Your task to perform on an android device: View the shopping cart on target. Add "logitech g pro" to the cart on target Image 0: 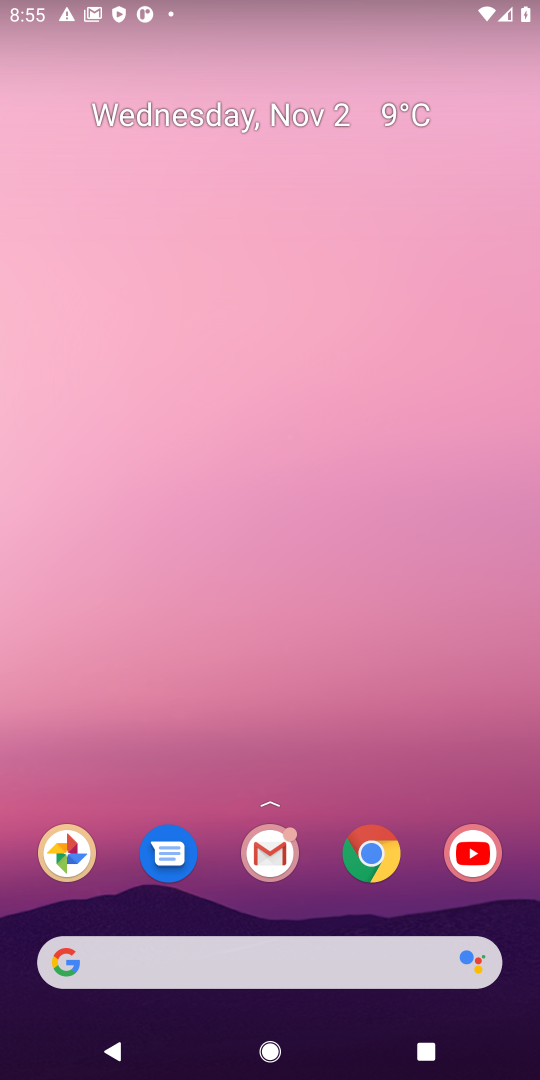
Step 0: press home button
Your task to perform on an android device: View the shopping cart on target. Add "logitech g pro" to the cart on target Image 1: 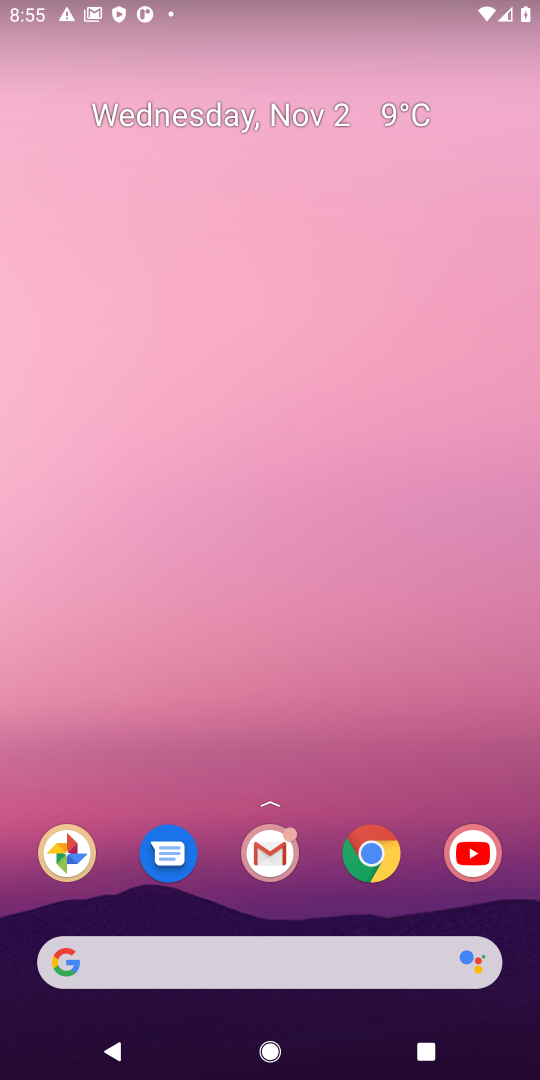
Step 1: click (378, 857)
Your task to perform on an android device: View the shopping cart on target. Add "logitech g pro" to the cart on target Image 2: 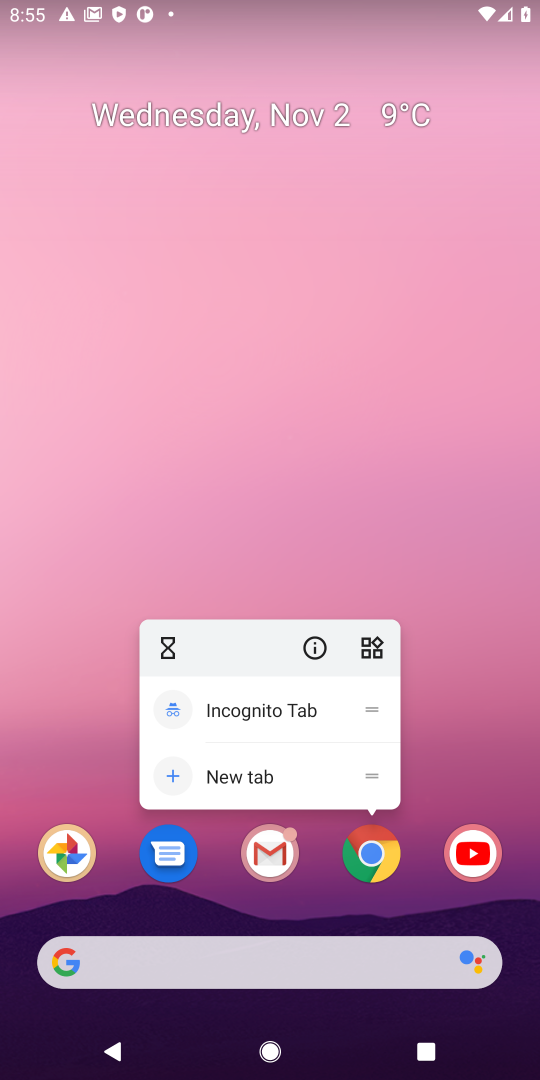
Step 2: click (370, 850)
Your task to perform on an android device: View the shopping cart on target. Add "logitech g pro" to the cart on target Image 3: 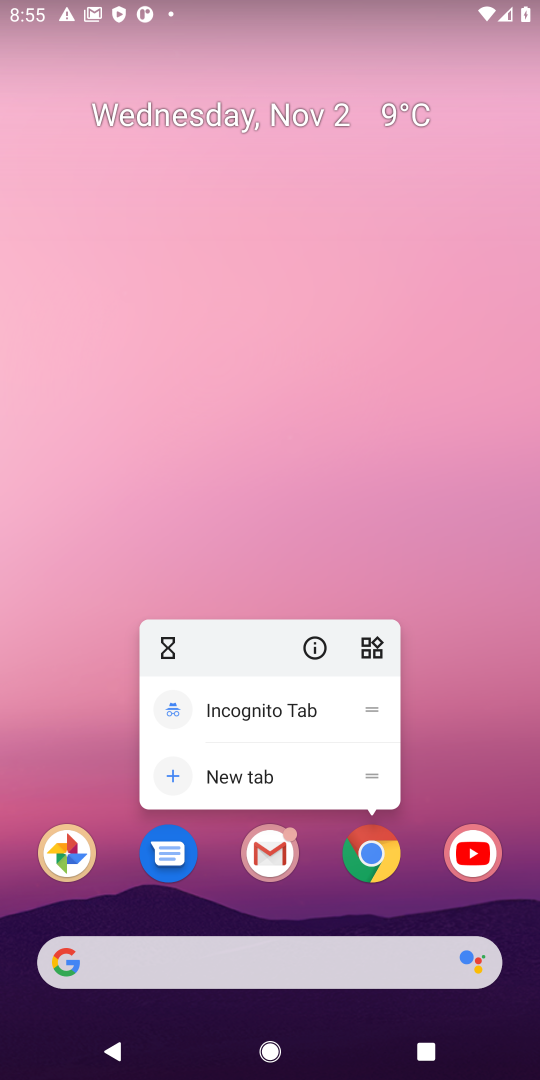
Step 3: click (370, 849)
Your task to perform on an android device: View the shopping cart on target. Add "logitech g pro" to the cart on target Image 4: 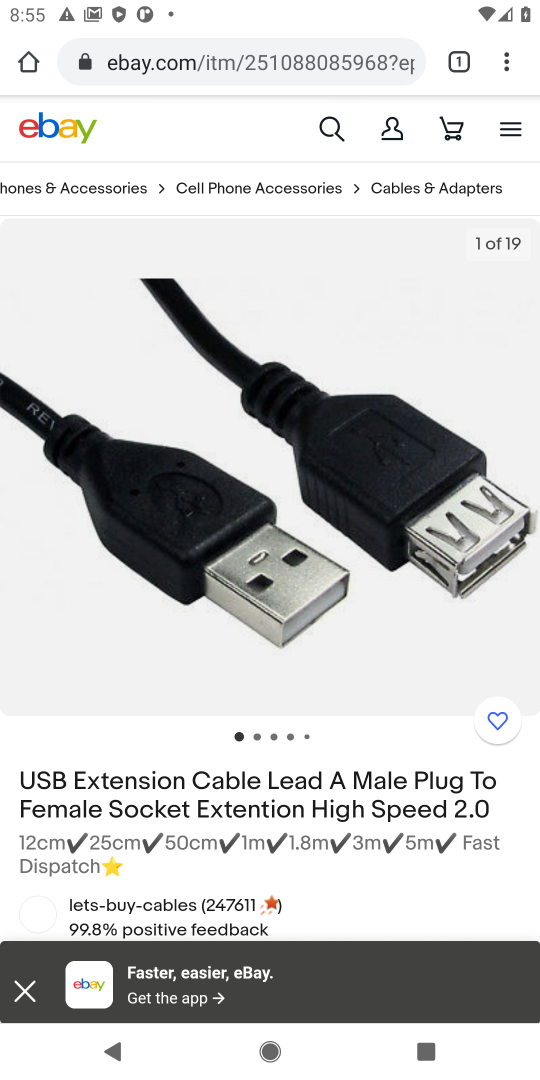
Step 4: click (367, 68)
Your task to perform on an android device: View the shopping cart on target. Add "logitech g pro" to the cart on target Image 5: 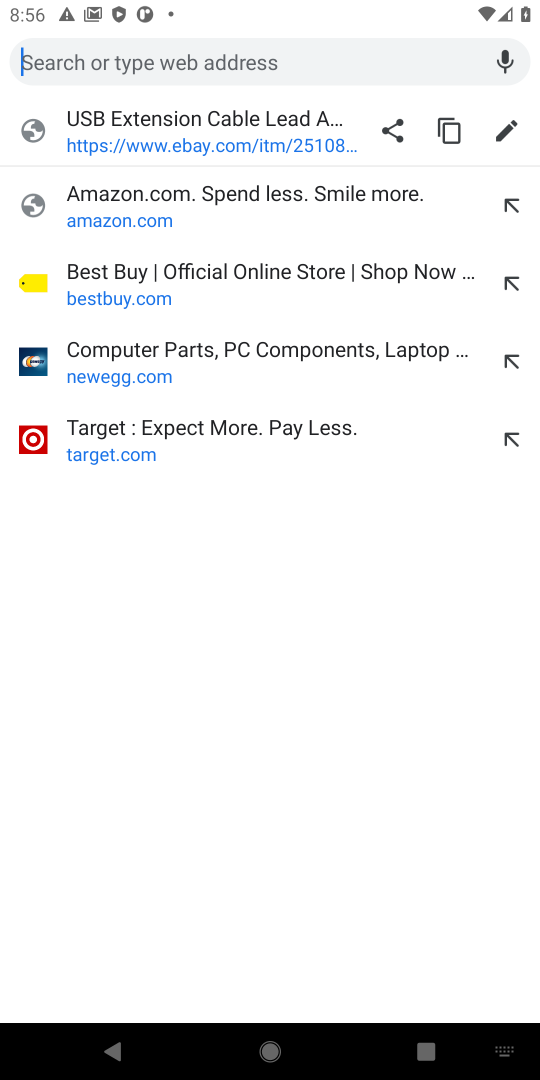
Step 5: type "target"
Your task to perform on an android device: View the shopping cart on target. Add "logitech g pro" to the cart on target Image 6: 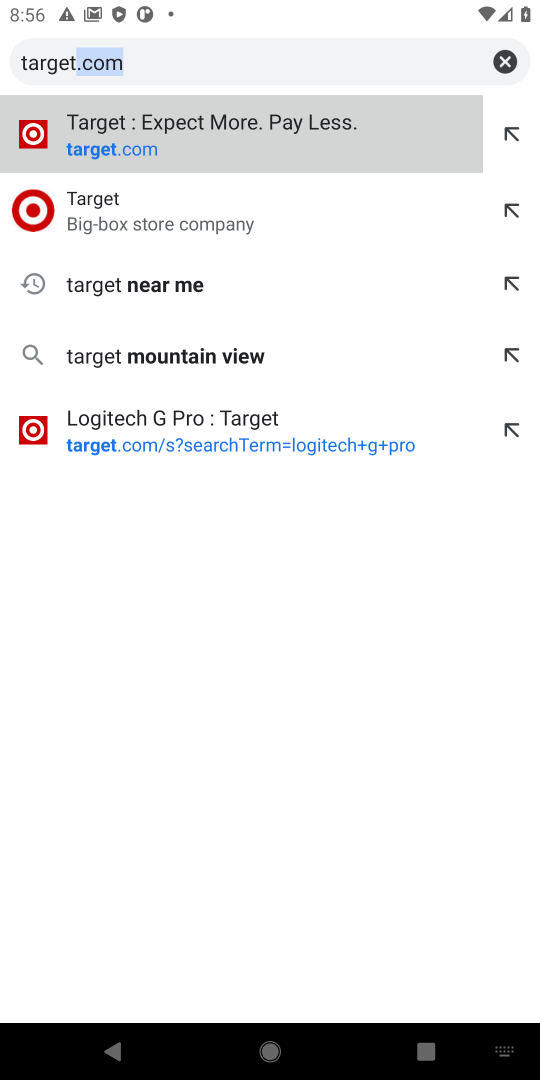
Step 6: press enter
Your task to perform on an android device: View the shopping cart on target. Add "logitech g pro" to the cart on target Image 7: 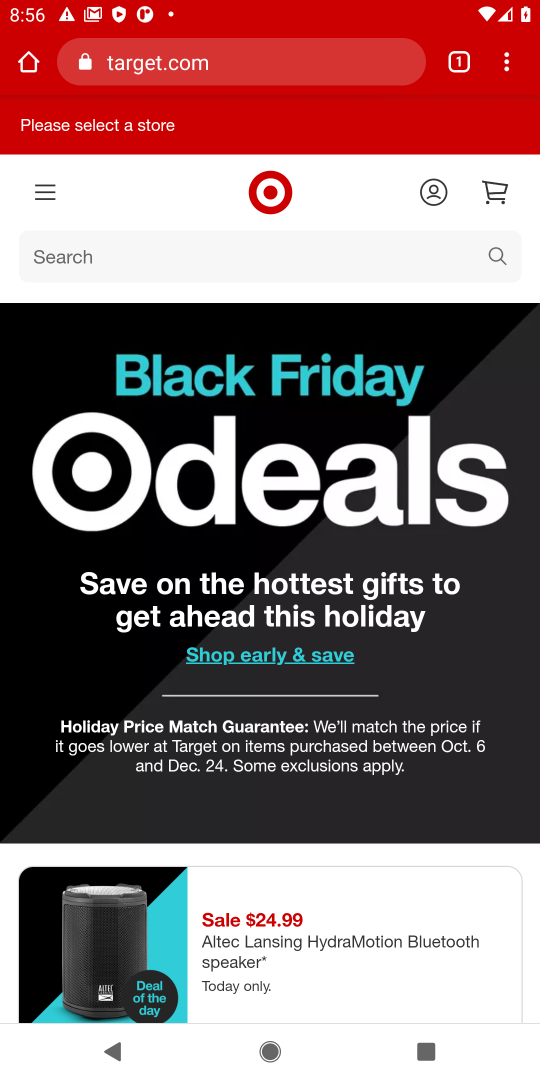
Step 7: click (161, 247)
Your task to perform on an android device: View the shopping cart on target. Add "logitech g pro" to the cart on target Image 8: 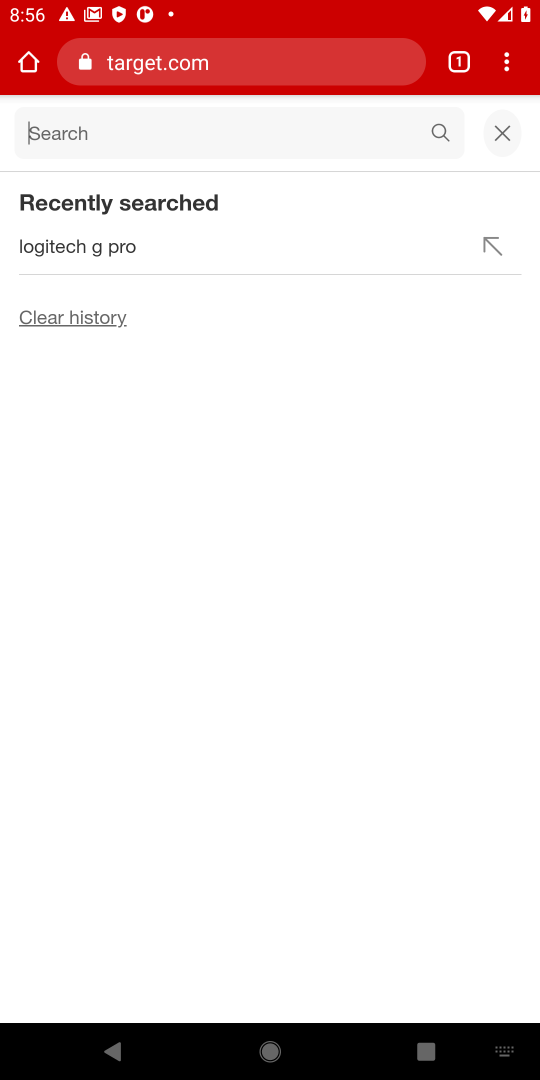
Step 8: type "logitech g pro"
Your task to perform on an android device: View the shopping cart on target. Add "logitech g pro" to the cart on target Image 9: 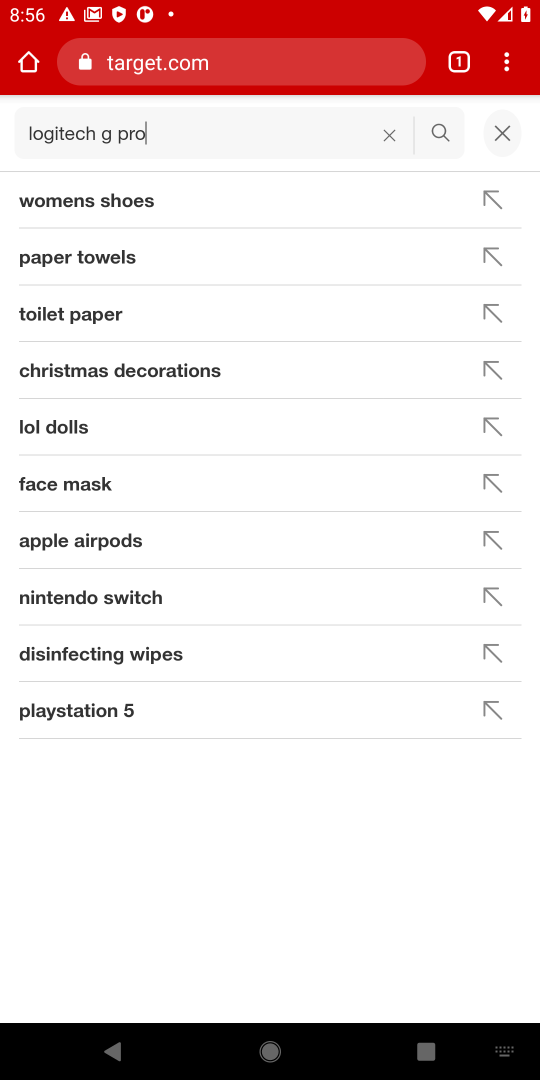
Step 9: press enter
Your task to perform on an android device: View the shopping cart on target. Add "logitech g pro" to the cart on target Image 10: 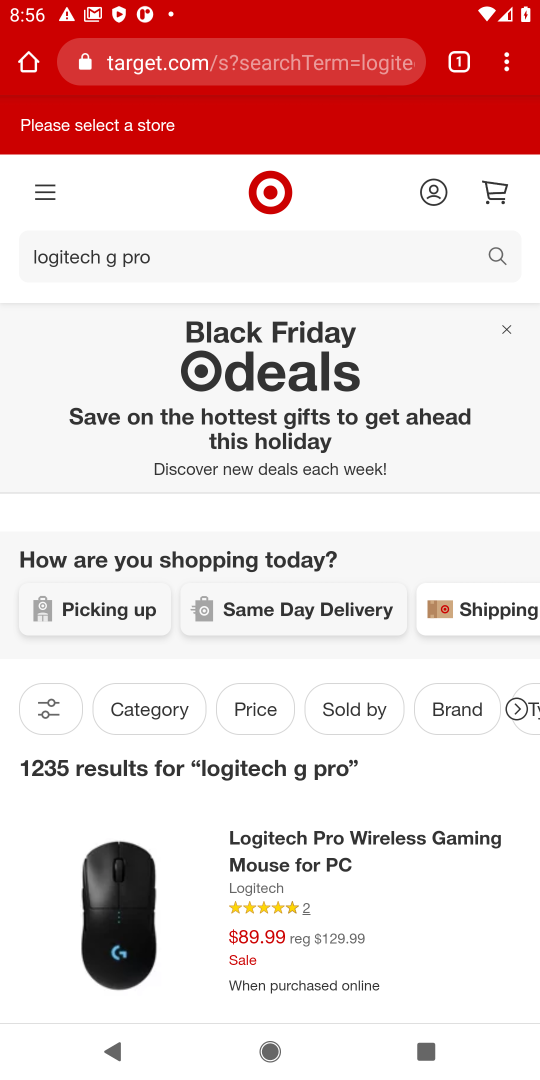
Step 10: task complete